Your task to perform on an android device: turn off notifications in google photos Image 0: 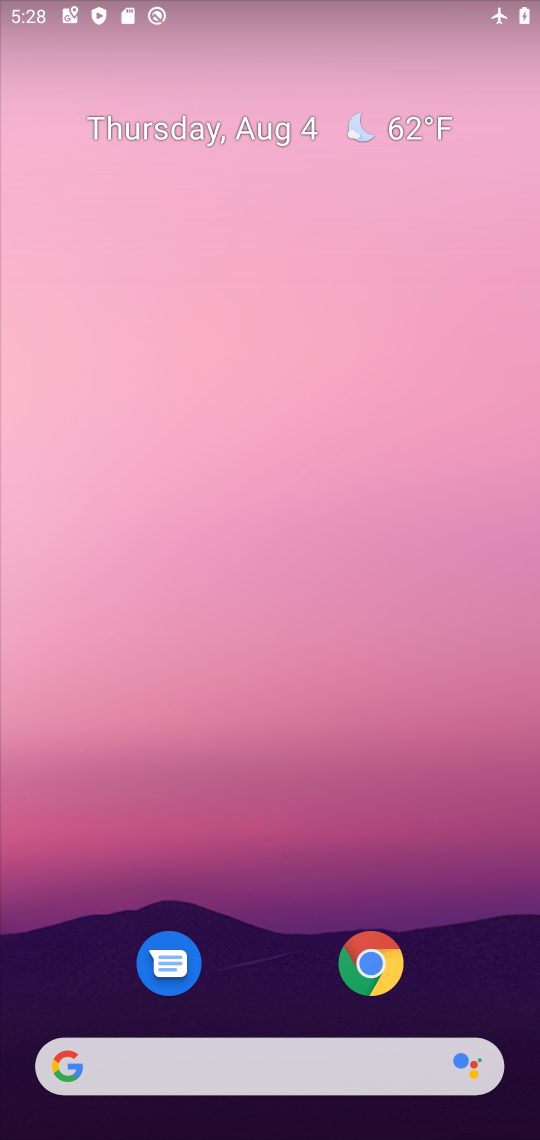
Step 0: drag from (315, 839) to (249, 20)
Your task to perform on an android device: turn off notifications in google photos Image 1: 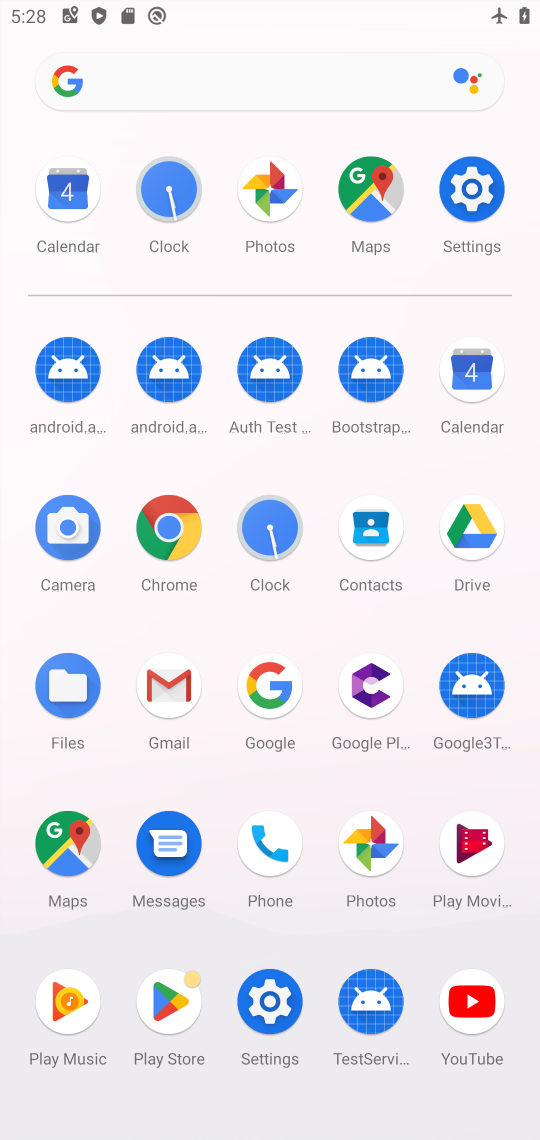
Step 1: click (261, 189)
Your task to perform on an android device: turn off notifications in google photos Image 2: 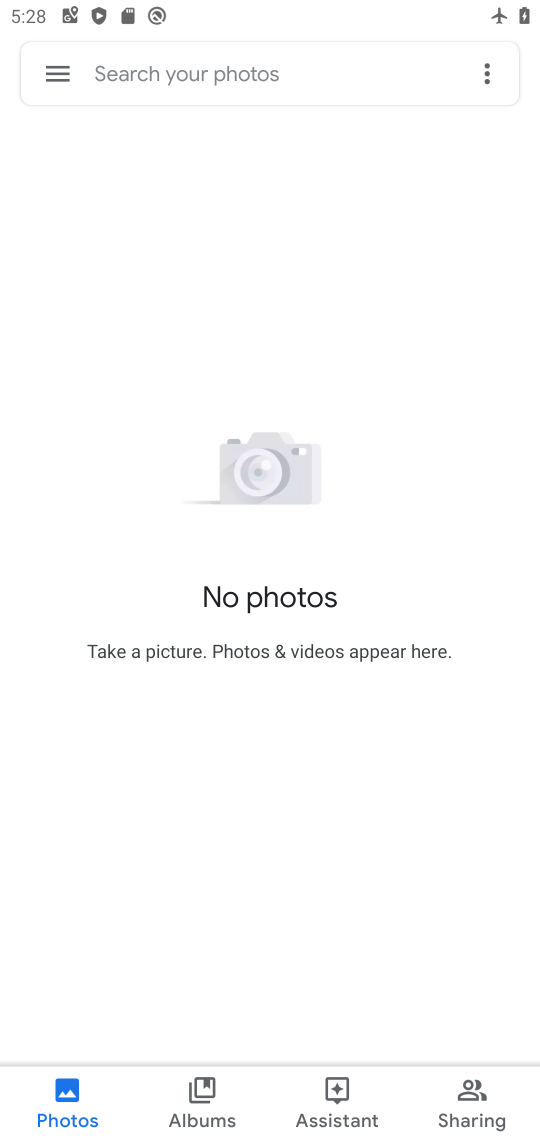
Step 2: click (50, 66)
Your task to perform on an android device: turn off notifications in google photos Image 3: 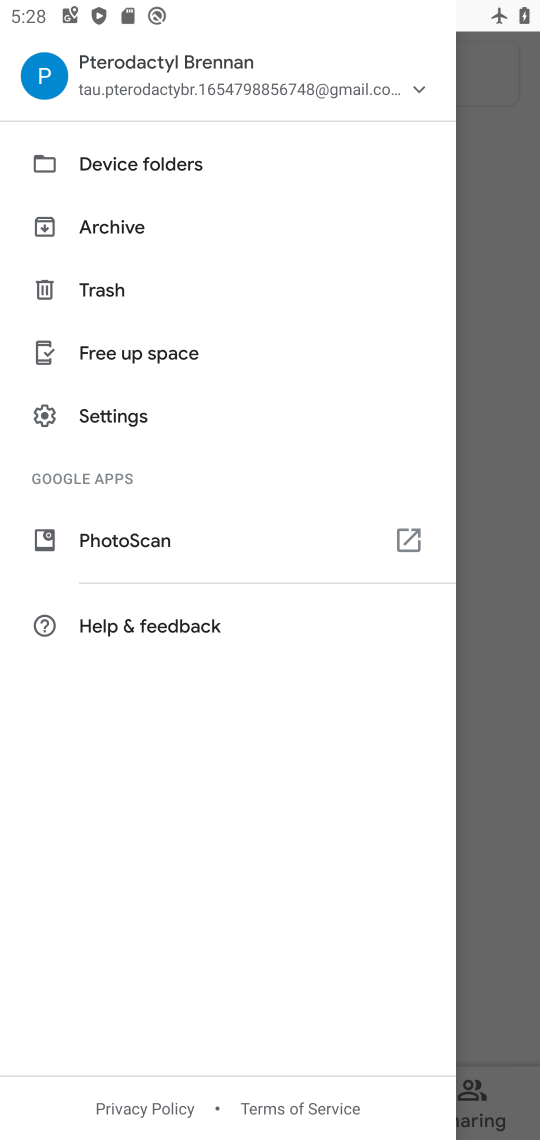
Step 3: click (118, 408)
Your task to perform on an android device: turn off notifications in google photos Image 4: 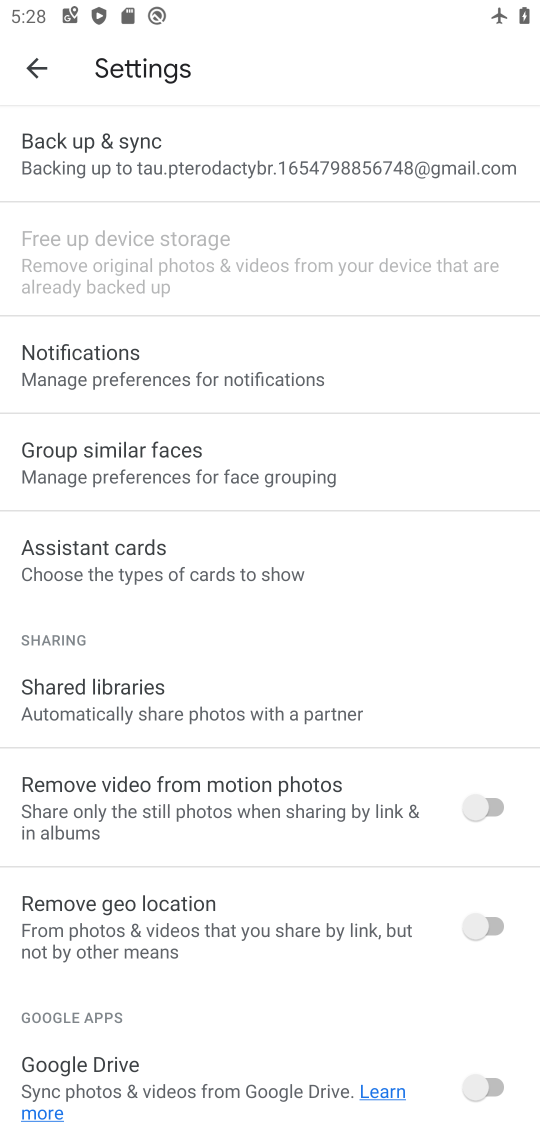
Step 4: click (80, 345)
Your task to perform on an android device: turn off notifications in google photos Image 5: 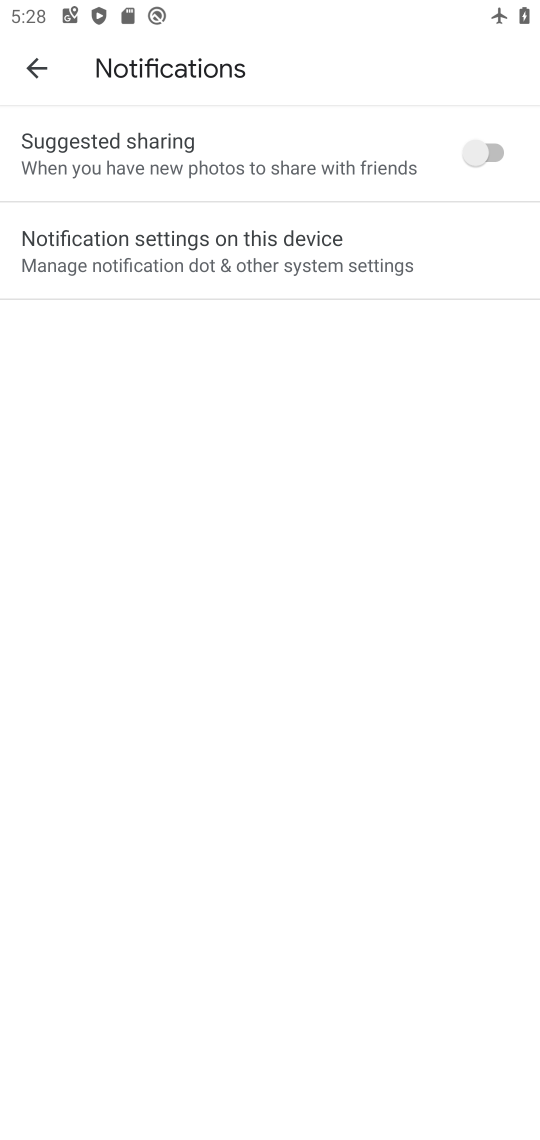
Step 5: click (141, 239)
Your task to perform on an android device: turn off notifications in google photos Image 6: 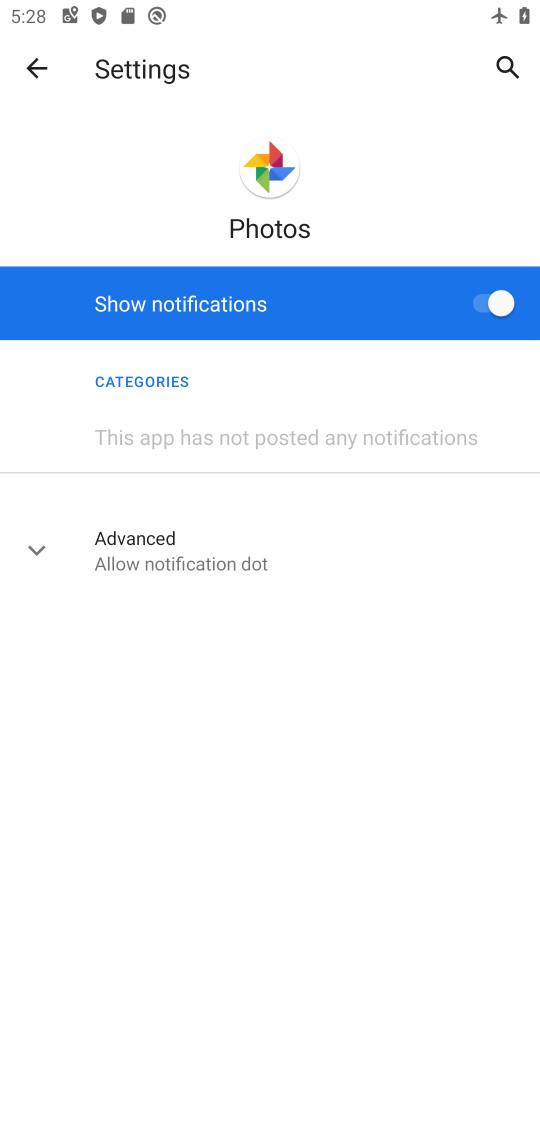
Step 6: click (492, 299)
Your task to perform on an android device: turn off notifications in google photos Image 7: 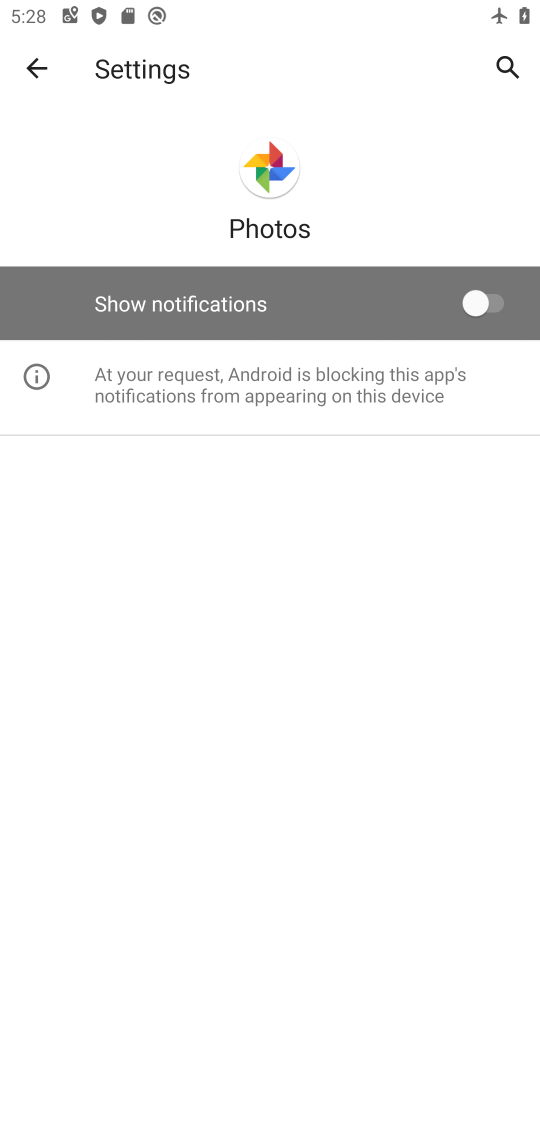
Step 7: task complete